Your task to perform on an android device: Go to notification settings Image 0: 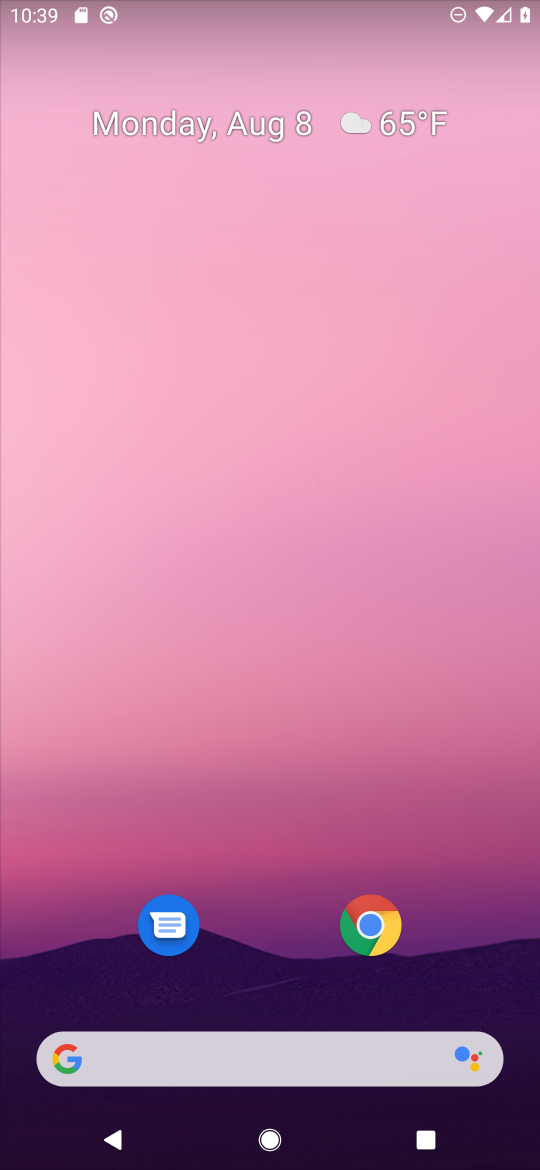
Step 0: drag from (275, 977) to (313, 135)
Your task to perform on an android device: Go to notification settings Image 1: 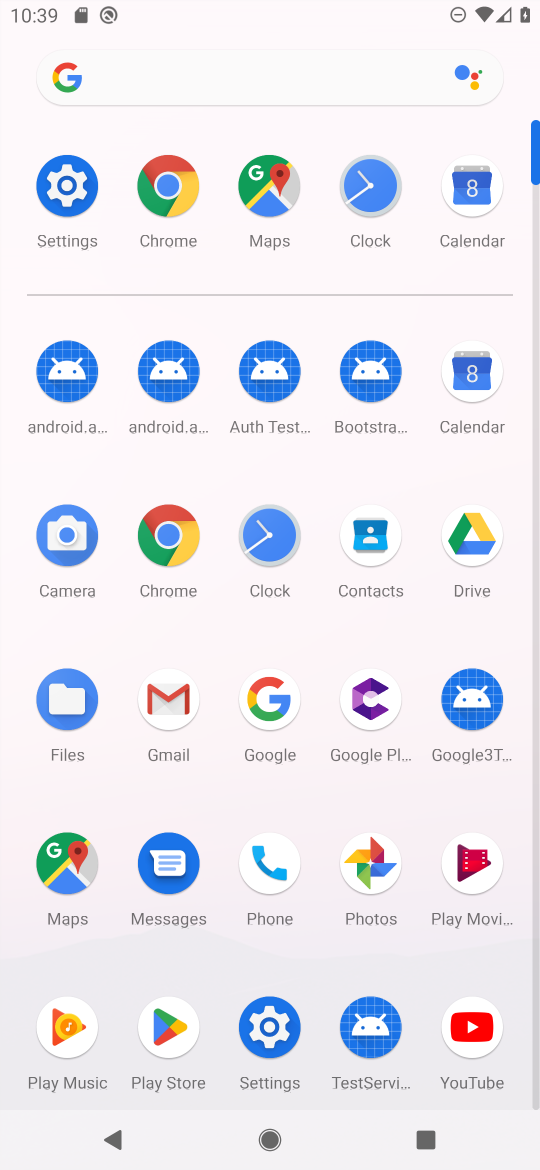
Step 1: click (271, 1034)
Your task to perform on an android device: Go to notification settings Image 2: 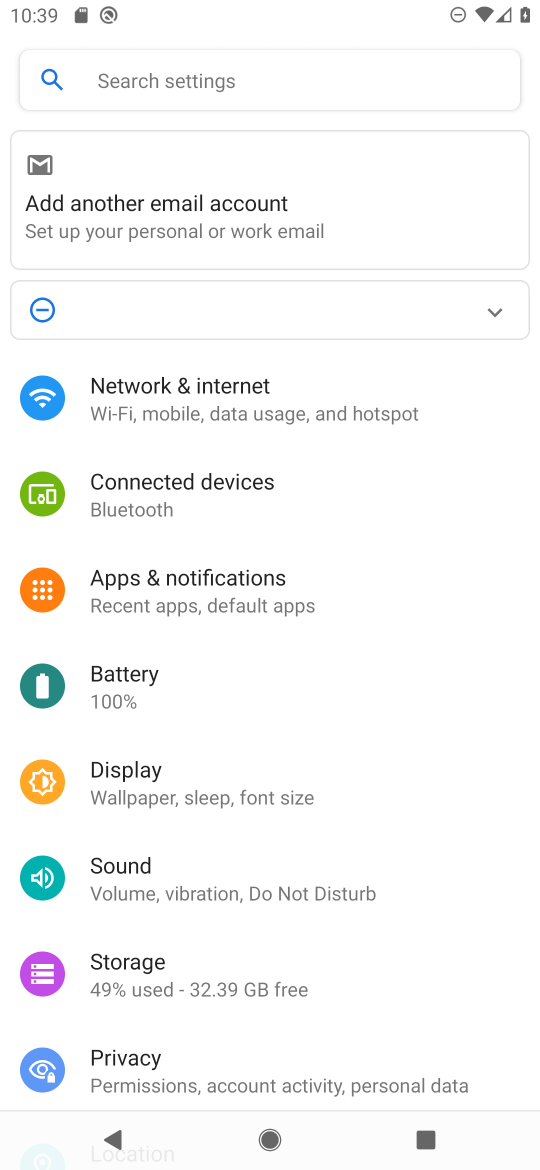
Step 2: click (157, 569)
Your task to perform on an android device: Go to notification settings Image 3: 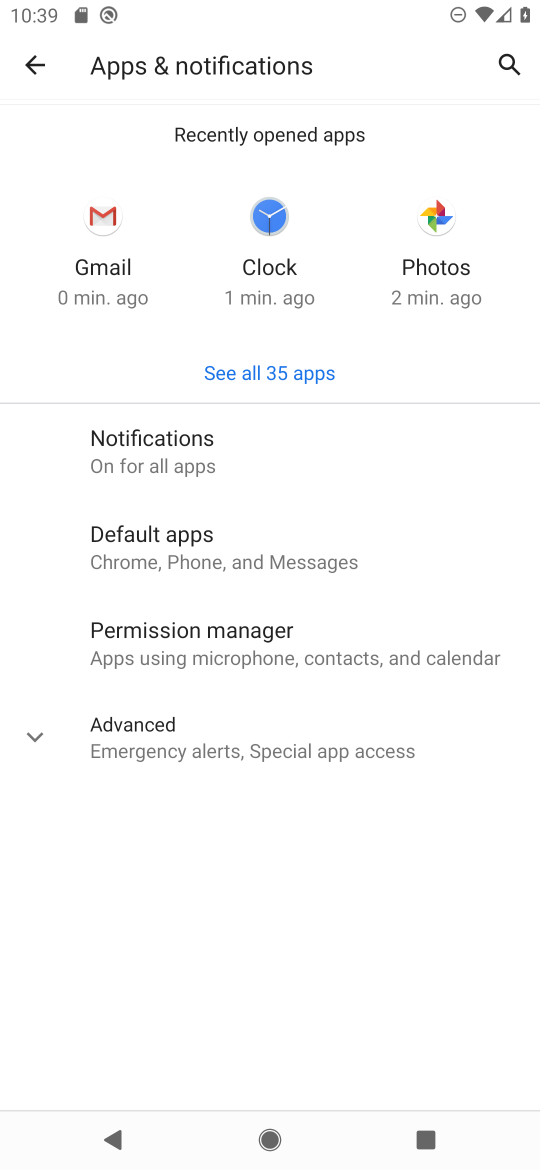
Step 3: click (192, 447)
Your task to perform on an android device: Go to notification settings Image 4: 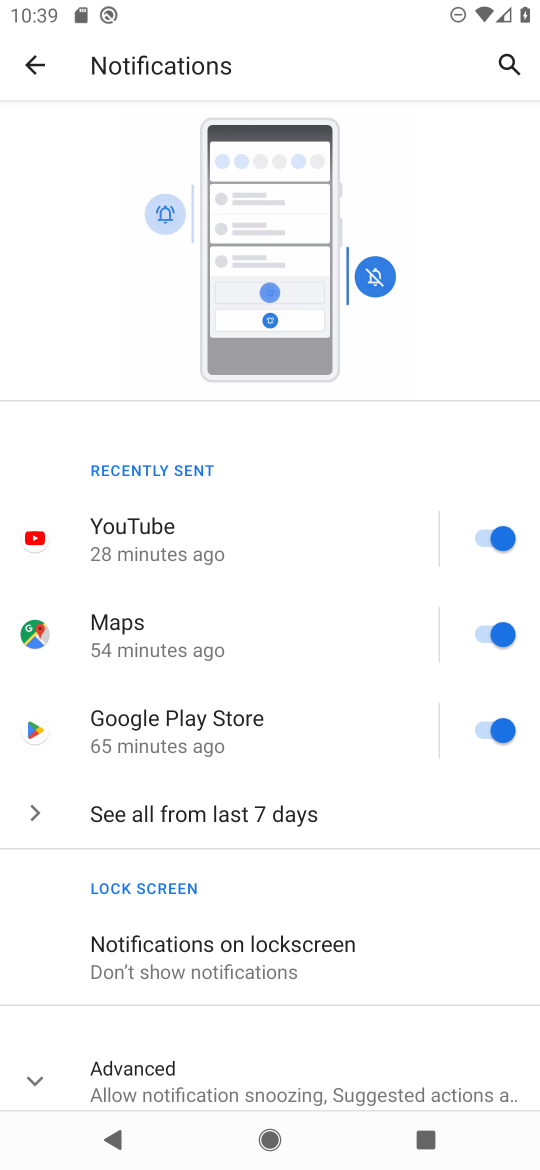
Step 4: task complete